Your task to perform on an android device: turn on sleep mode Image 0: 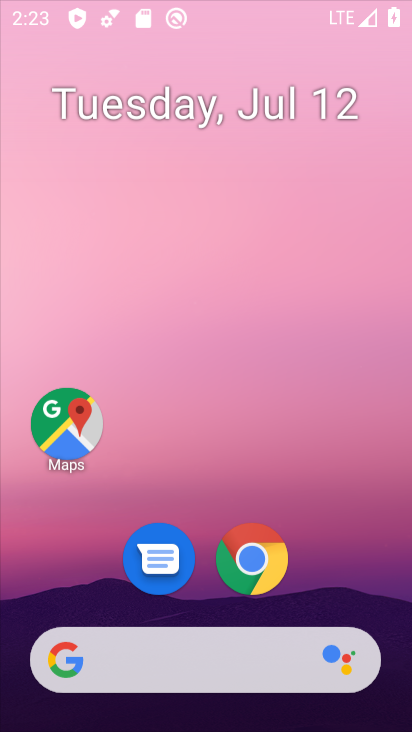
Step 0: press home button
Your task to perform on an android device: turn on sleep mode Image 1: 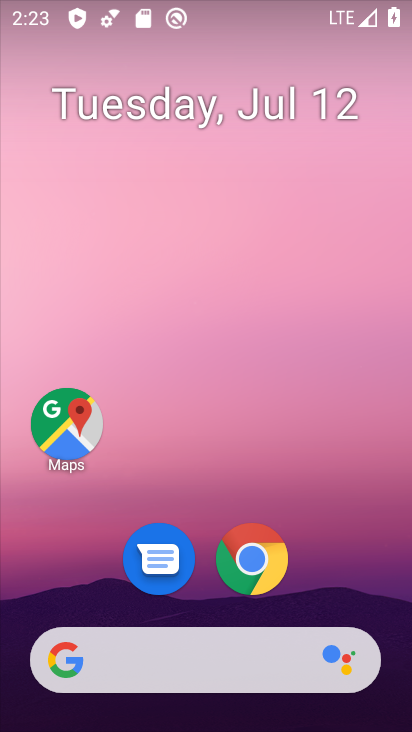
Step 1: drag from (384, 600) to (384, 218)
Your task to perform on an android device: turn on sleep mode Image 2: 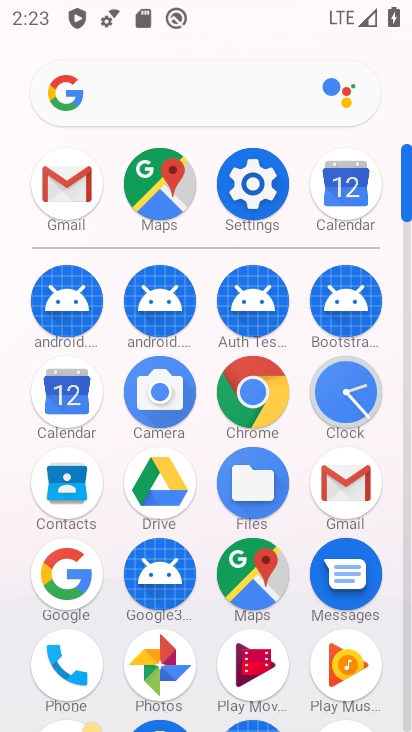
Step 2: drag from (386, 518) to (380, 277)
Your task to perform on an android device: turn on sleep mode Image 3: 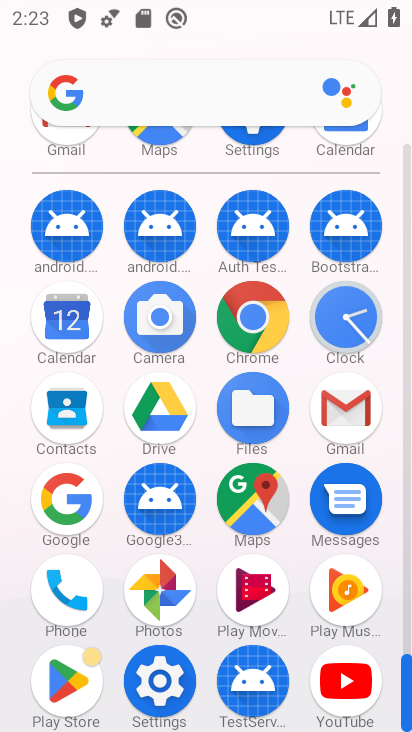
Step 3: click (180, 694)
Your task to perform on an android device: turn on sleep mode Image 4: 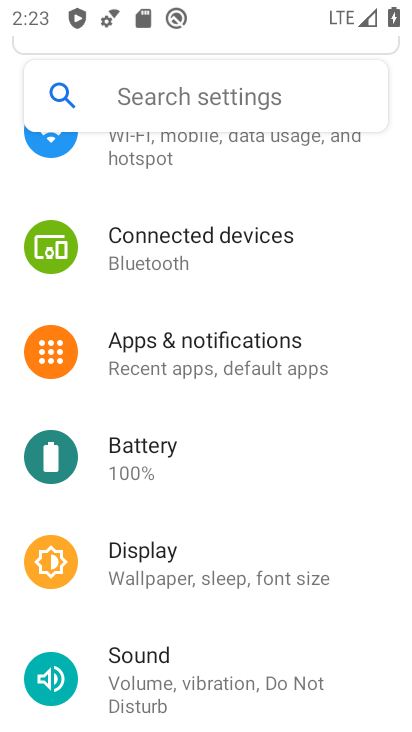
Step 4: drag from (359, 407) to (359, 530)
Your task to perform on an android device: turn on sleep mode Image 5: 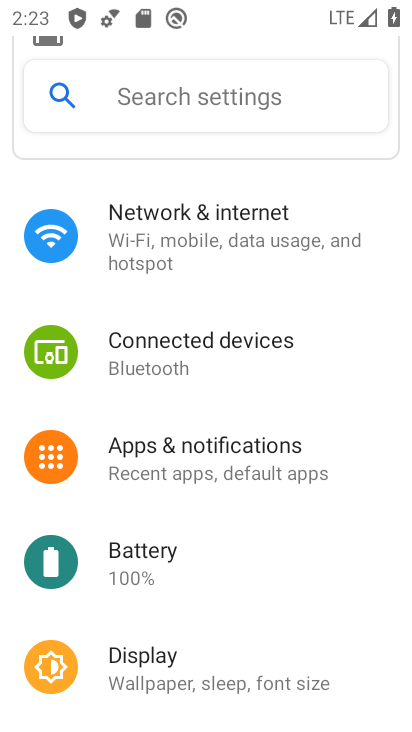
Step 5: drag from (355, 362) to (353, 492)
Your task to perform on an android device: turn on sleep mode Image 6: 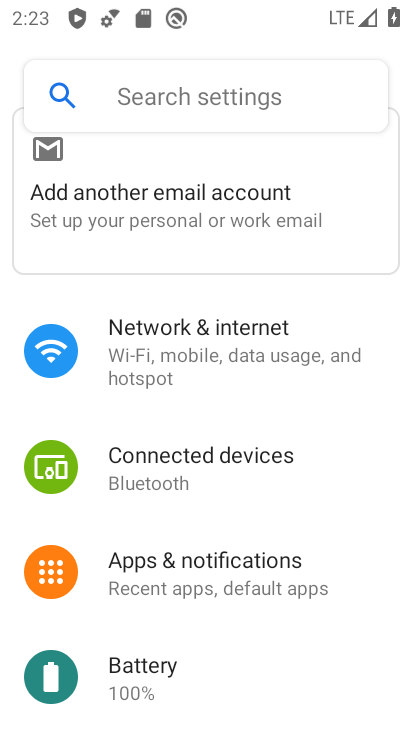
Step 6: drag from (351, 301) to (346, 584)
Your task to perform on an android device: turn on sleep mode Image 7: 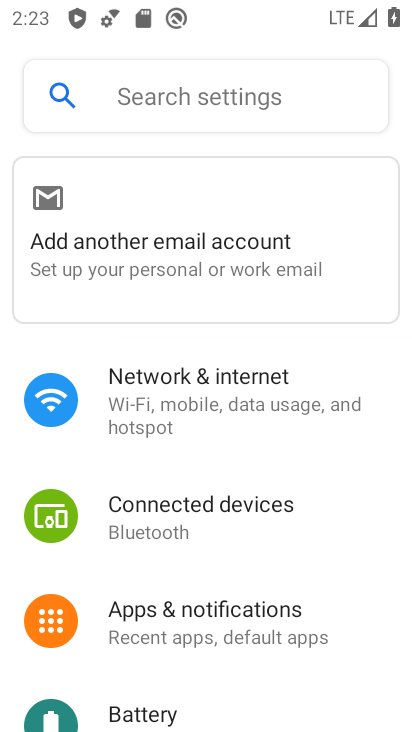
Step 7: drag from (350, 592) to (356, 483)
Your task to perform on an android device: turn on sleep mode Image 8: 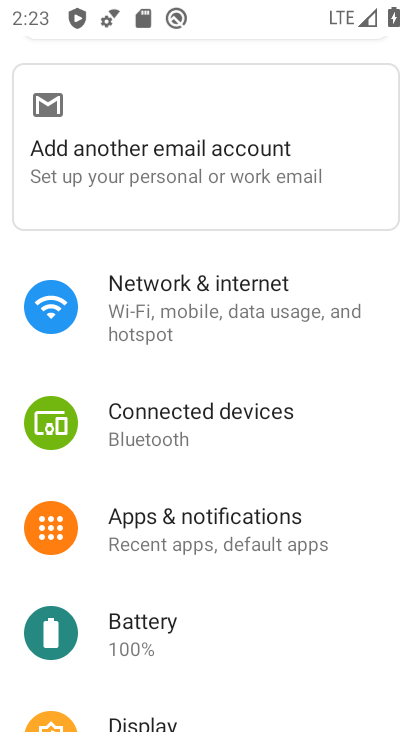
Step 8: drag from (350, 564) to (362, 451)
Your task to perform on an android device: turn on sleep mode Image 9: 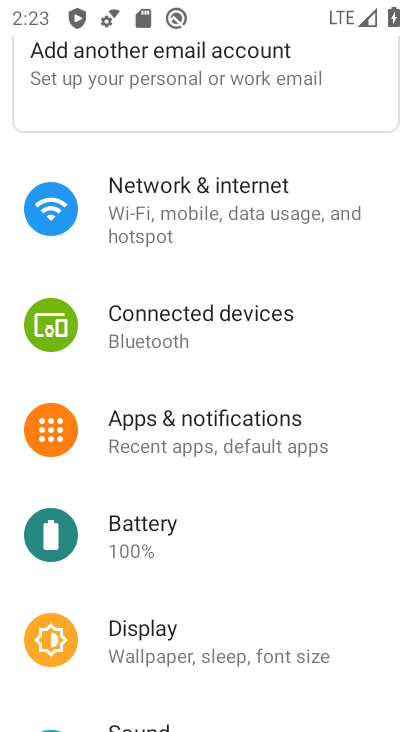
Step 9: drag from (353, 564) to (360, 469)
Your task to perform on an android device: turn on sleep mode Image 10: 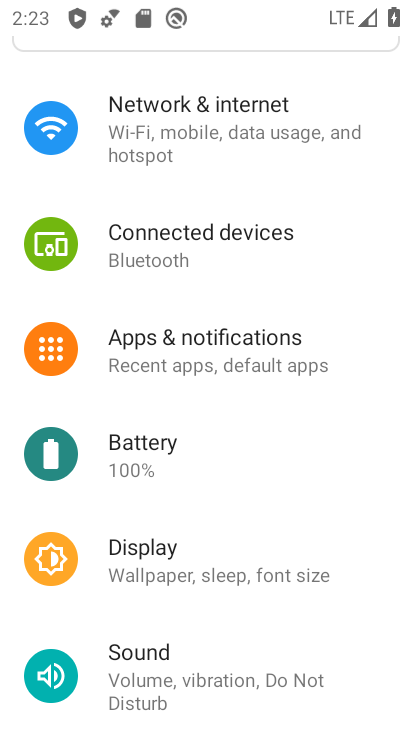
Step 10: drag from (361, 584) to (362, 492)
Your task to perform on an android device: turn on sleep mode Image 11: 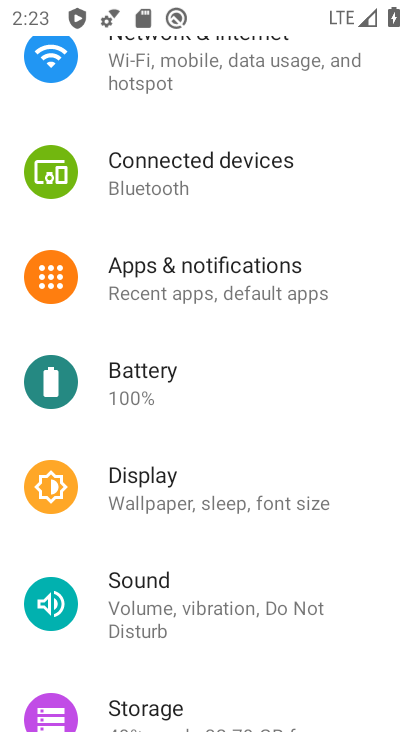
Step 11: drag from (353, 577) to (357, 493)
Your task to perform on an android device: turn on sleep mode Image 12: 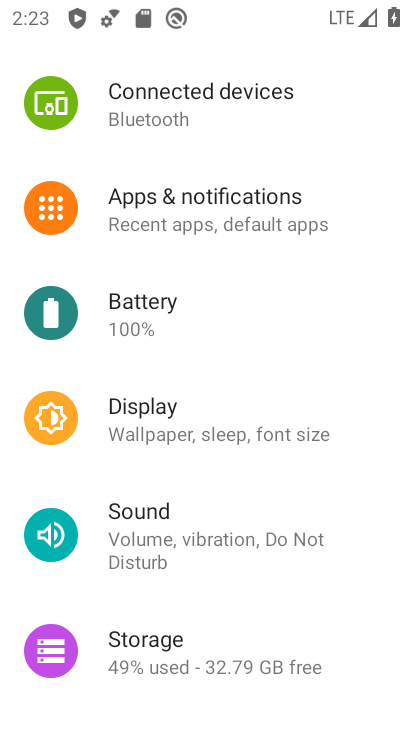
Step 12: drag from (339, 588) to (351, 455)
Your task to perform on an android device: turn on sleep mode Image 13: 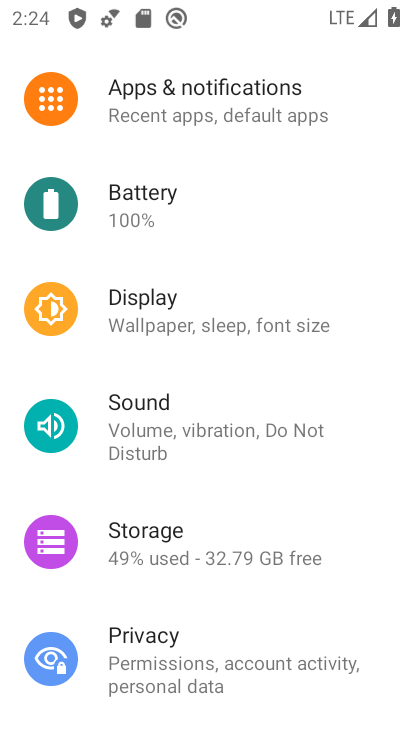
Step 13: click (288, 326)
Your task to perform on an android device: turn on sleep mode Image 14: 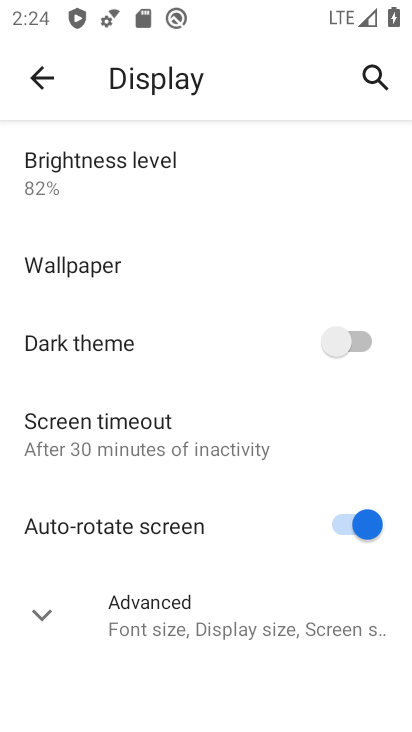
Step 14: click (291, 608)
Your task to perform on an android device: turn on sleep mode Image 15: 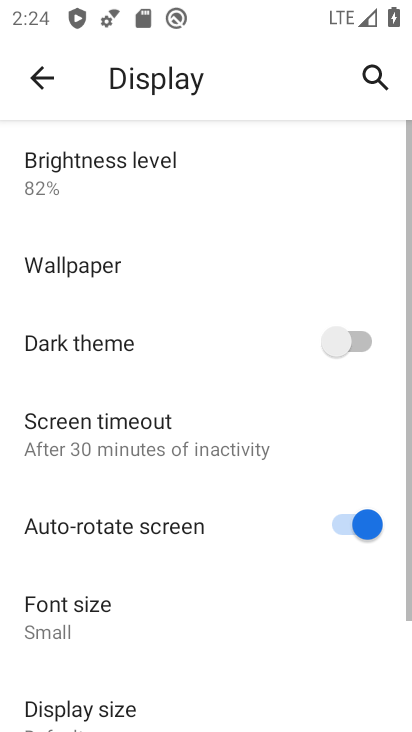
Step 15: task complete